Your task to perform on an android device: stop showing notifications on the lock screen Image 0: 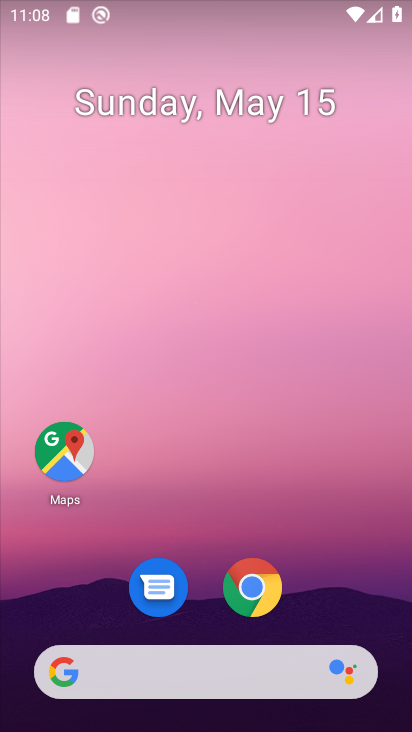
Step 0: drag from (205, 549) to (217, 186)
Your task to perform on an android device: stop showing notifications on the lock screen Image 1: 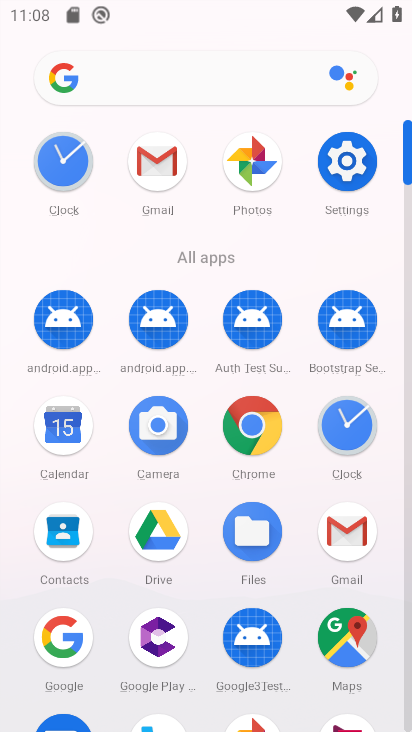
Step 1: click (317, 161)
Your task to perform on an android device: stop showing notifications on the lock screen Image 2: 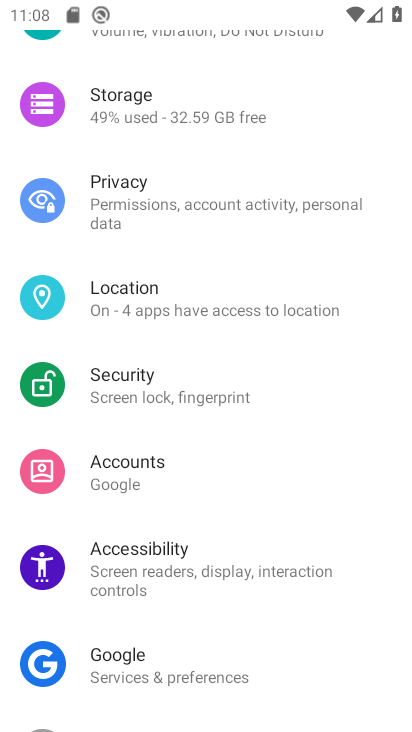
Step 2: drag from (212, 183) to (212, 540)
Your task to perform on an android device: stop showing notifications on the lock screen Image 3: 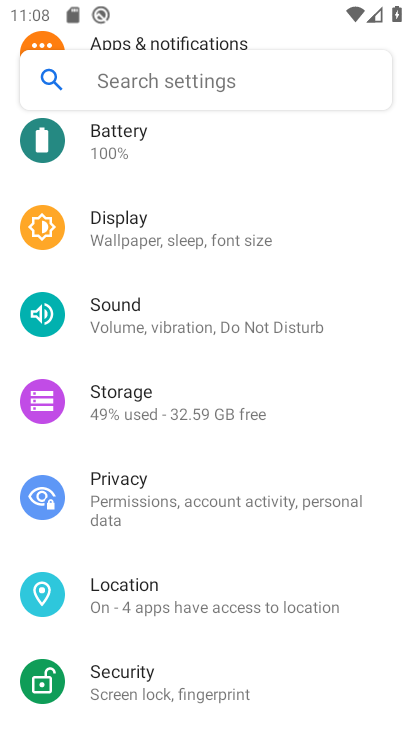
Step 3: drag from (212, 230) to (255, 525)
Your task to perform on an android device: stop showing notifications on the lock screen Image 4: 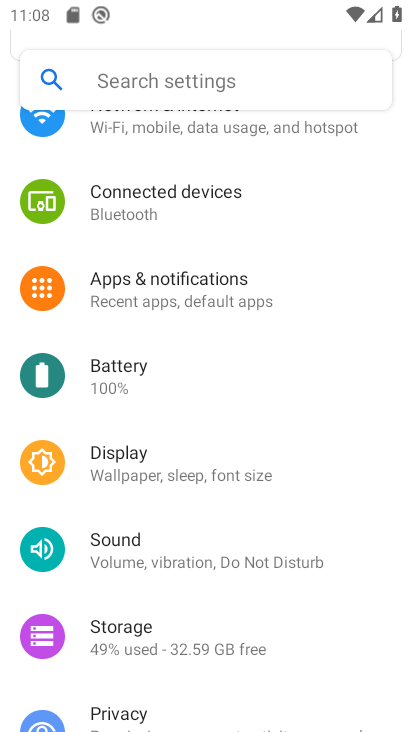
Step 4: click (201, 296)
Your task to perform on an android device: stop showing notifications on the lock screen Image 5: 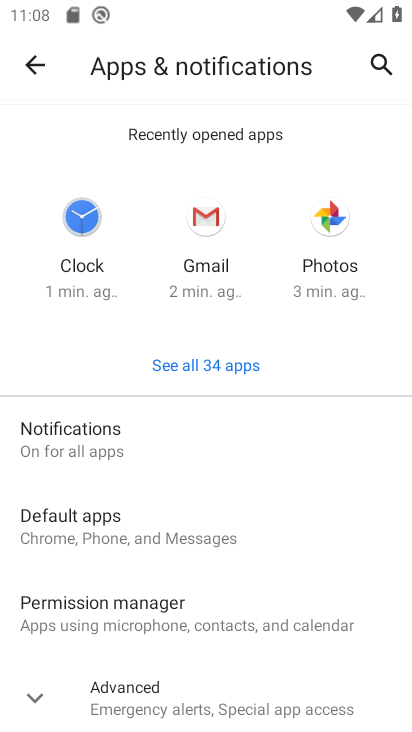
Step 5: click (95, 445)
Your task to perform on an android device: stop showing notifications on the lock screen Image 6: 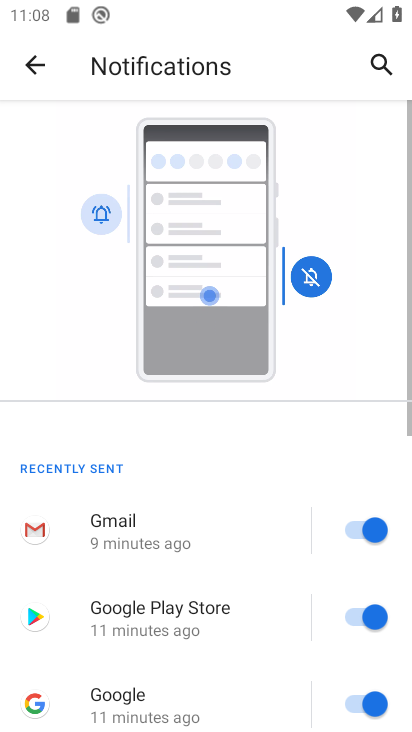
Step 6: drag from (254, 612) to (256, 214)
Your task to perform on an android device: stop showing notifications on the lock screen Image 7: 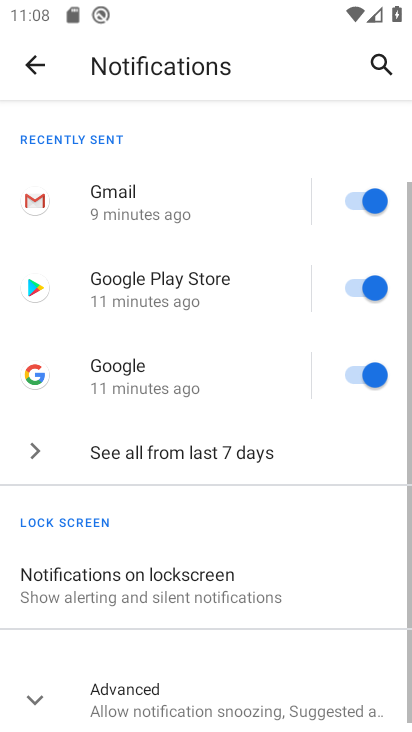
Step 7: drag from (226, 661) to (245, 414)
Your task to perform on an android device: stop showing notifications on the lock screen Image 8: 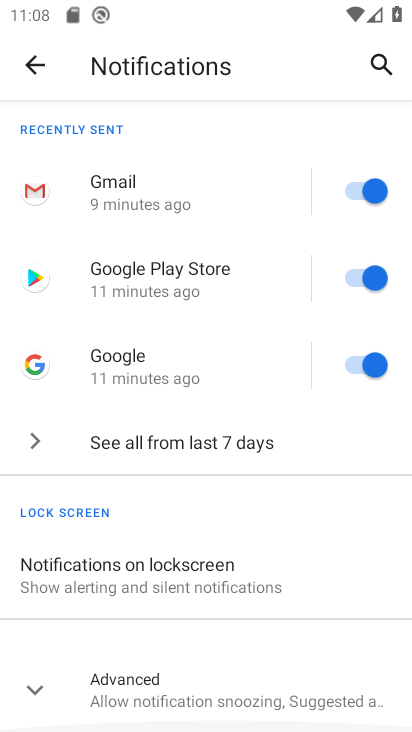
Step 8: click (135, 561)
Your task to perform on an android device: stop showing notifications on the lock screen Image 9: 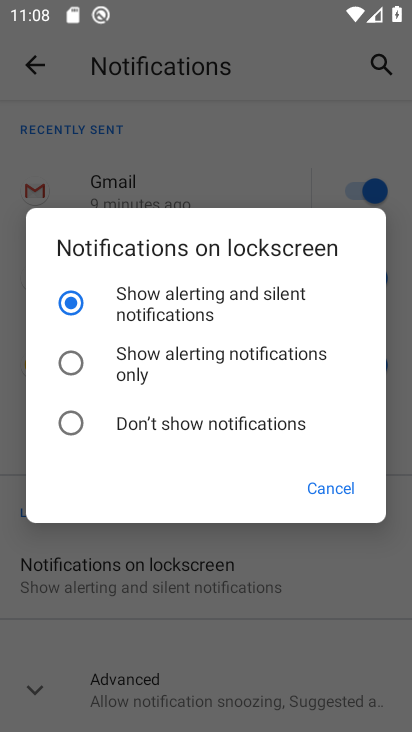
Step 9: click (113, 436)
Your task to perform on an android device: stop showing notifications on the lock screen Image 10: 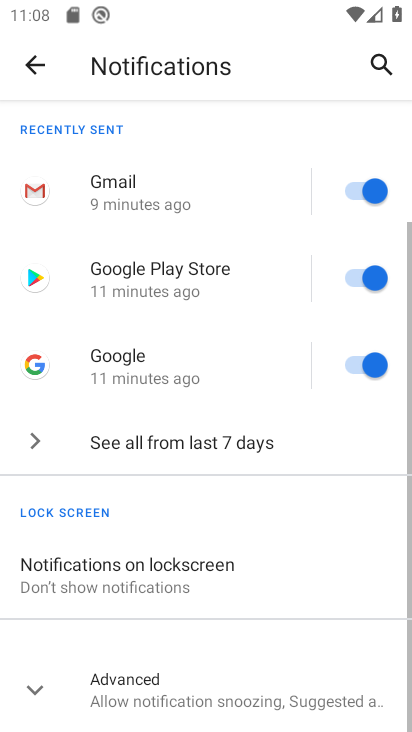
Step 10: task complete